Your task to perform on an android device: Turn off the flashlight Image 0: 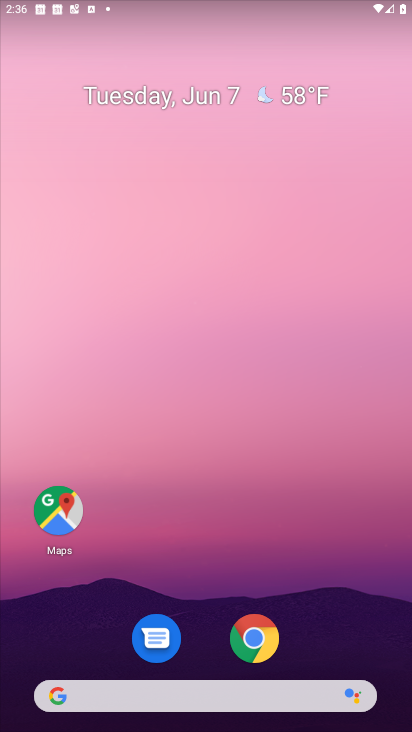
Step 0: drag from (219, 636) to (275, 170)
Your task to perform on an android device: Turn off the flashlight Image 1: 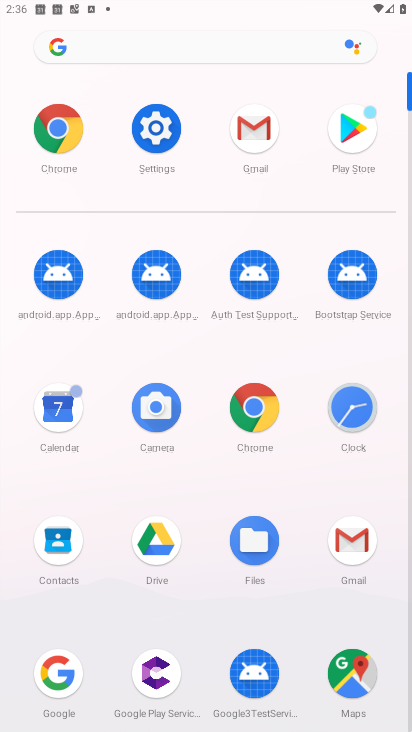
Step 1: click (160, 129)
Your task to perform on an android device: Turn off the flashlight Image 2: 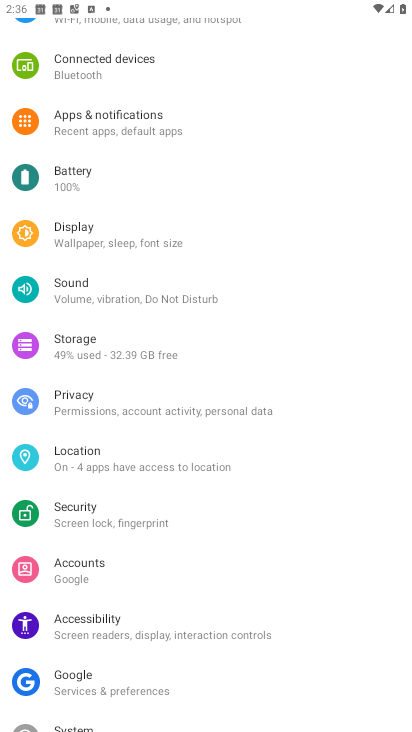
Step 2: click (73, 252)
Your task to perform on an android device: Turn off the flashlight Image 3: 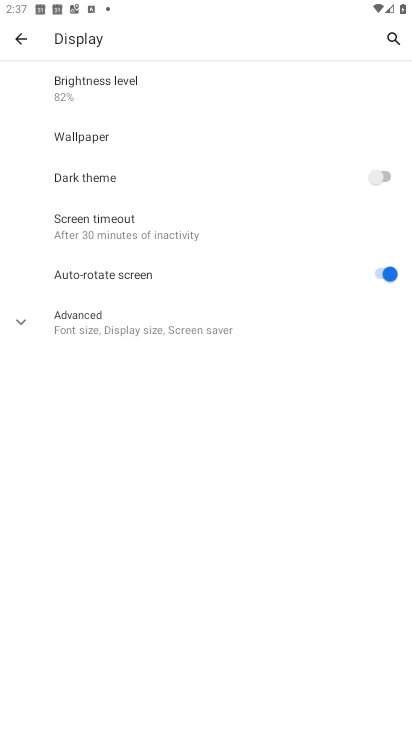
Step 3: task complete